Your task to perform on an android device: Search for vegetarian restaurants on Maps Image 0: 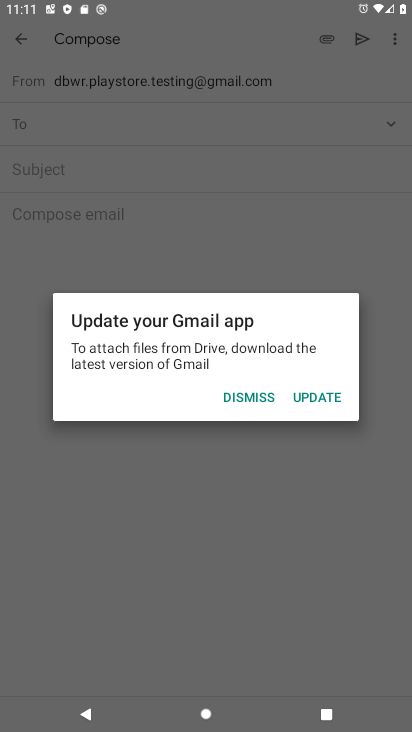
Step 0: click (243, 396)
Your task to perform on an android device: Search for vegetarian restaurants on Maps Image 1: 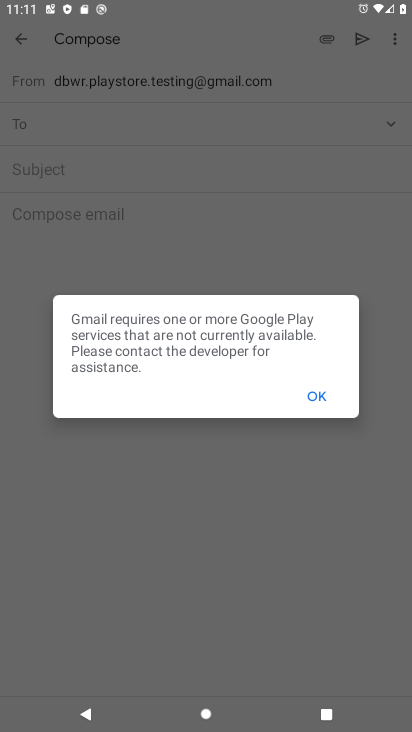
Step 1: click (312, 394)
Your task to perform on an android device: Search for vegetarian restaurants on Maps Image 2: 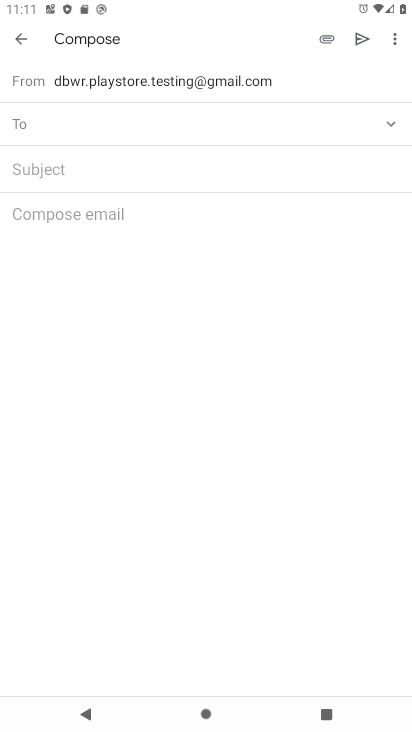
Step 2: click (19, 41)
Your task to perform on an android device: Search for vegetarian restaurants on Maps Image 3: 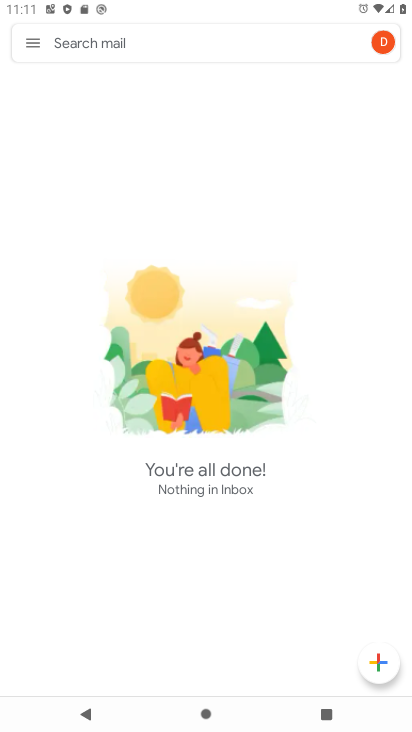
Step 3: press home button
Your task to perform on an android device: Search for vegetarian restaurants on Maps Image 4: 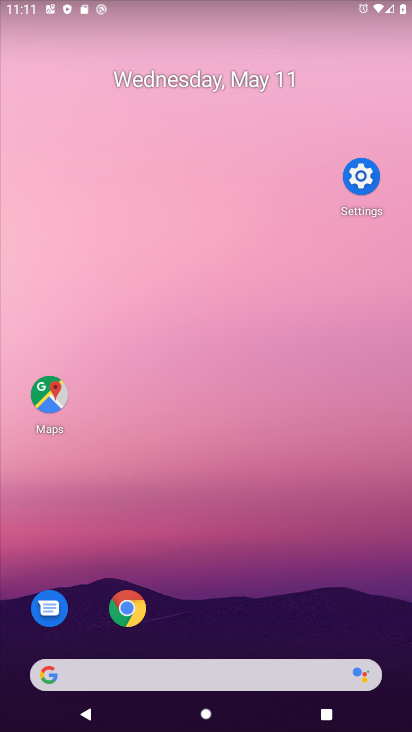
Step 4: drag from (205, 573) to (110, 74)
Your task to perform on an android device: Search for vegetarian restaurants on Maps Image 5: 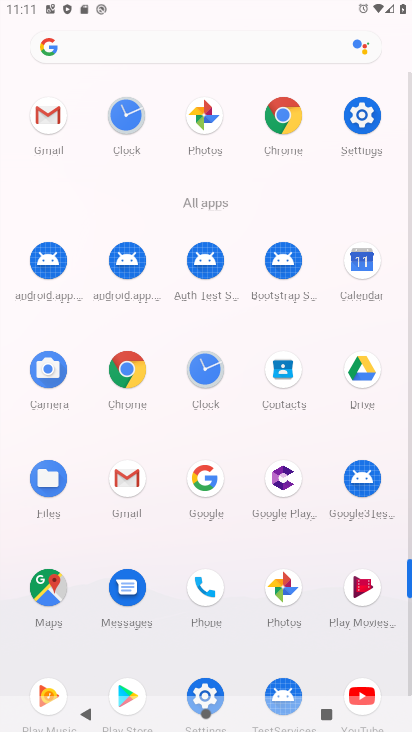
Step 5: click (45, 589)
Your task to perform on an android device: Search for vegetarian restaurants on Maps Image 6: 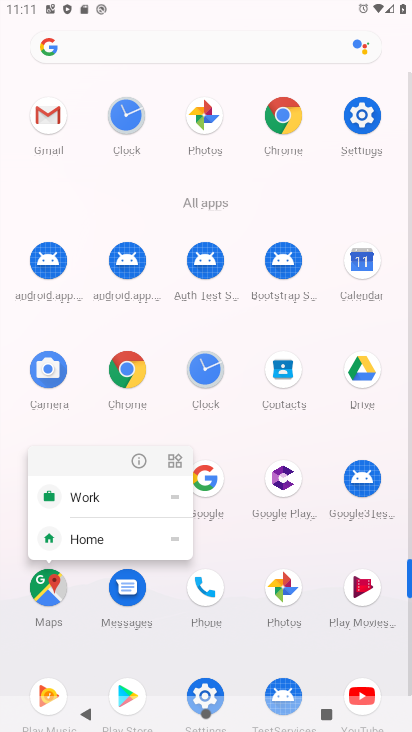
Step 6: click (46, 578)
Your task to perform on an android device: Search for vegetarian restaurants on Maps Image 7: 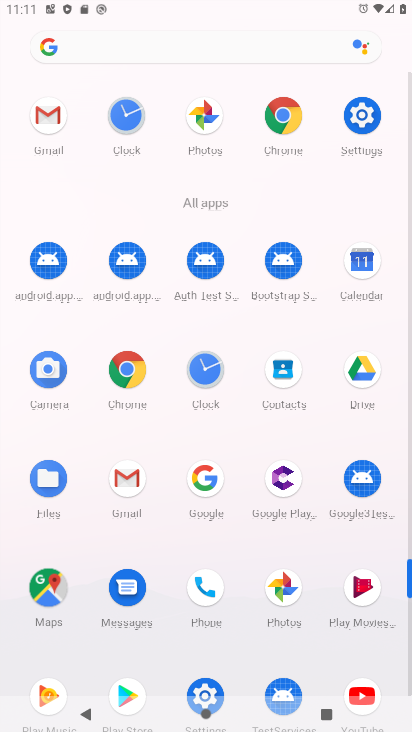
Step 7: click (48, 574)
Your task to perform on an android device: Search for vegetarian restaurants on Maps Image 8: 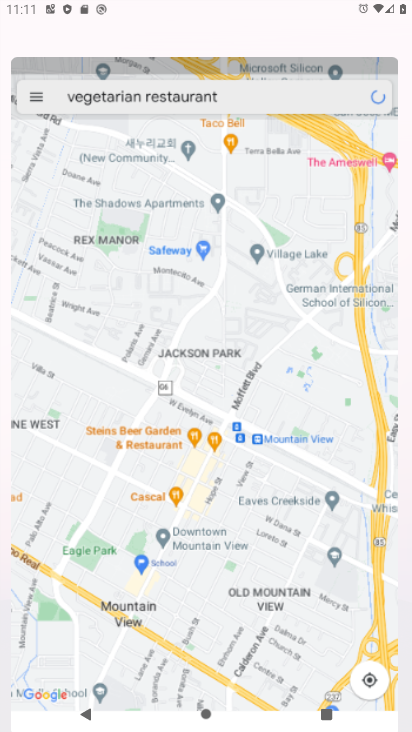
Step 8: click (56, 579)
Your task to perform on an android device: Search for vegetarian restaurants on Maps Image 9: 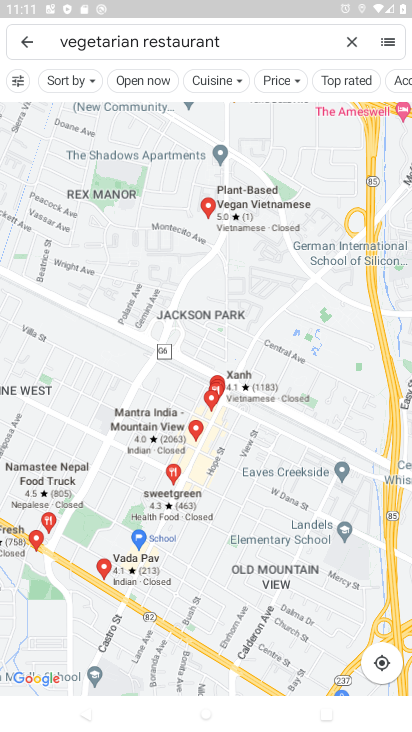
Step 9: click (249, 43)
Your task to perform on an android device: Search for vegetarian restaurants on Maps Image 10: 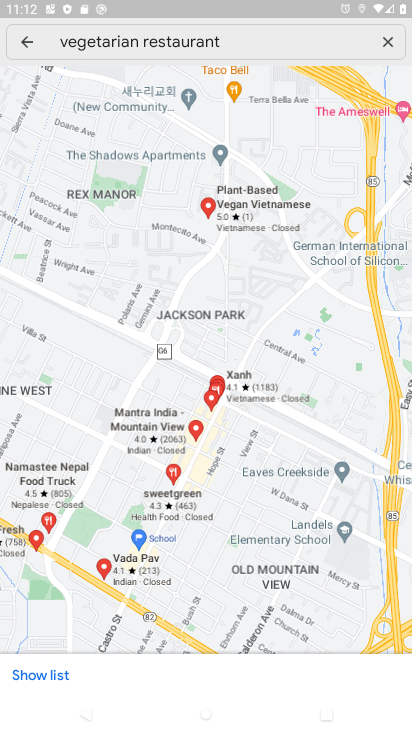
Step 10: task complete